Your task to perform on an android device: Open the Play Movies app and select the watchlist tab. Image 0: 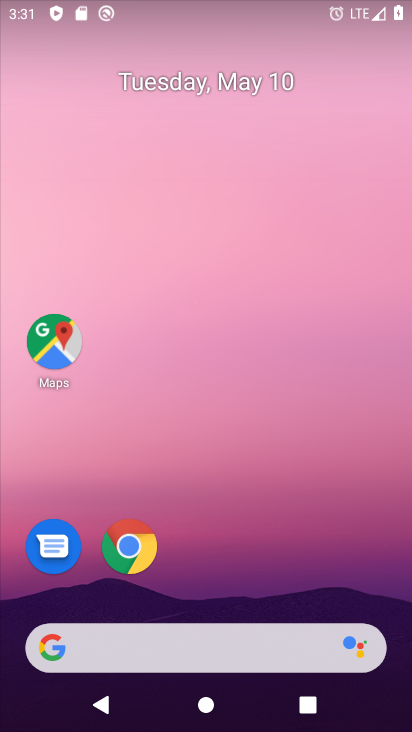
Step 0: drag from (234, 571) to (308, 10)
Your task to perform on an android device: Open the Play Movies app and select the watchlist tab. Image 1: 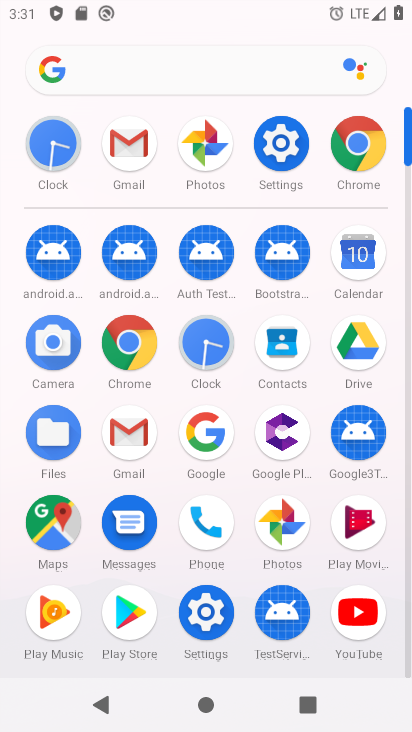
Step 1: click (362, 521)
Your task to perform on an android device: Open the Play Movies app and select the watchlist tab. Image 2: 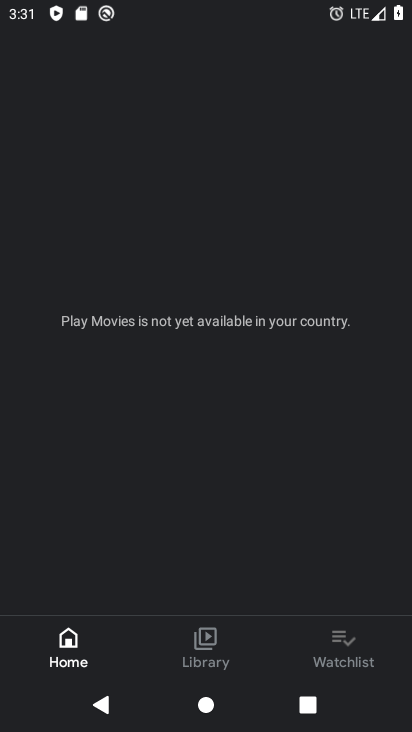
Step 2: click (336, 651)
Your task to perform on an android device: Open the Play Movies app and select the watchlist tab. Image 3: 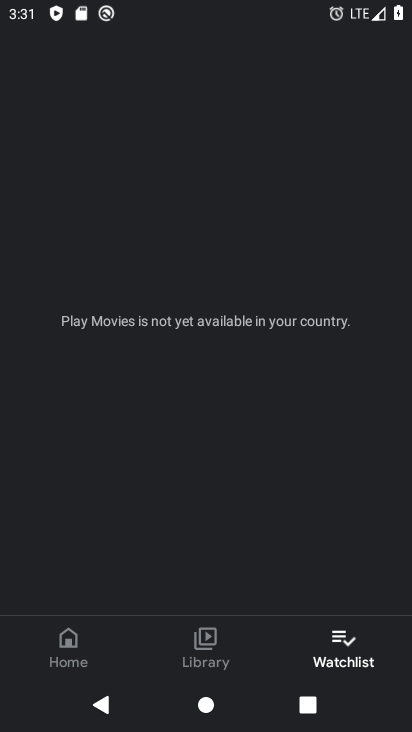
Step 3: task complete